Your task to perform on an android device: open sync settings in chrome Image 0: 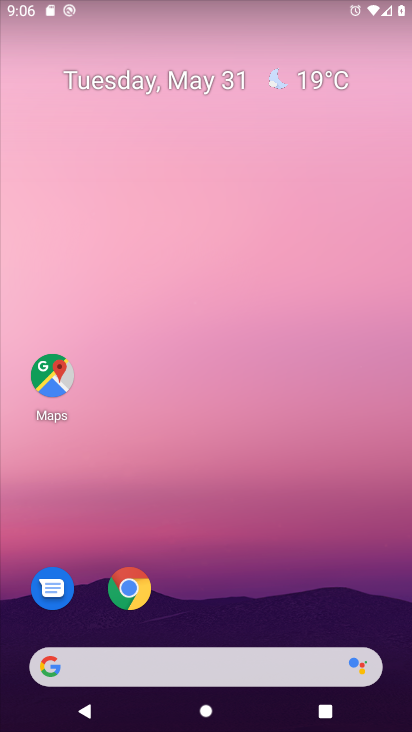
Step 0: press home button
Your task to perform on an android device: open sync settings in chrome Image 1: 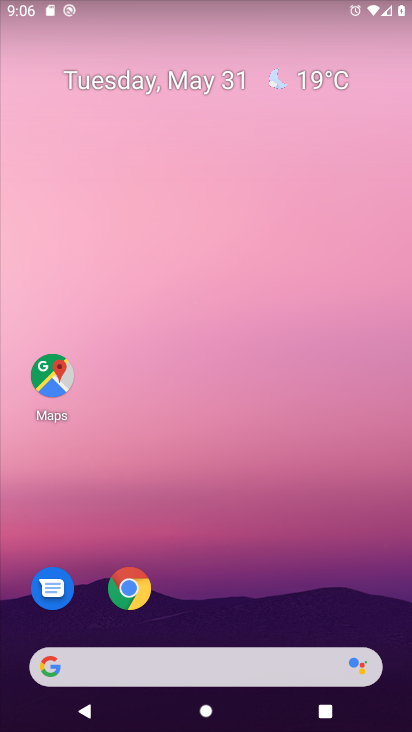
Step 1: click (133, 591)
Your task to perform on an android device: open sync settings in chrome Image 2: 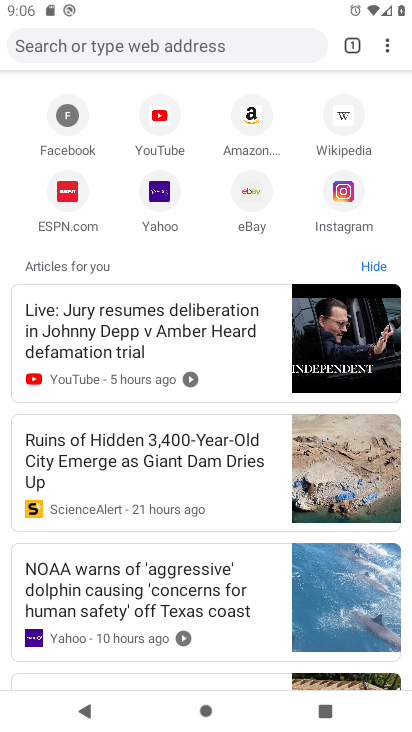
Step 2: drag from (386, 46) to (253, 388)
Your task to perform on an android device: open sync settings in chrome Image 3: 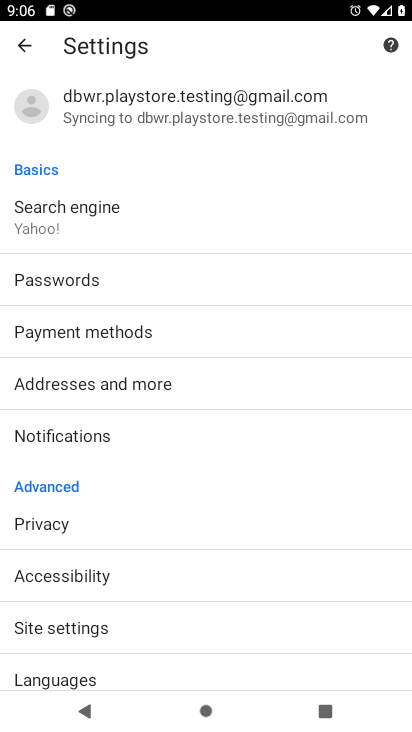
Step 3: click (180, 104)
Your task to perform on an android device: open sync settings in chrome Image 4: 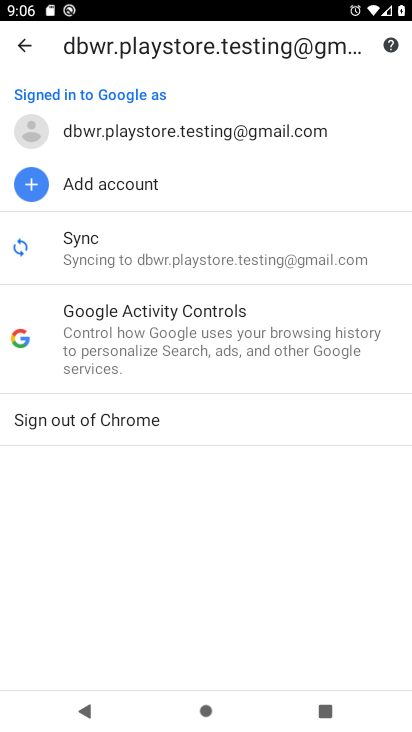
Step 4: click (157, 256)
Your task to perform on an android device: open sync settings in chrome Image 5: 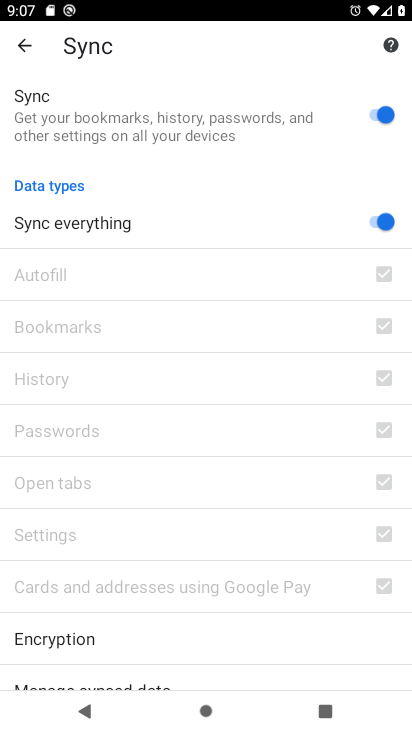
Step 5: task complete